Your task to perform on an android device: Open the web browser Image 0: 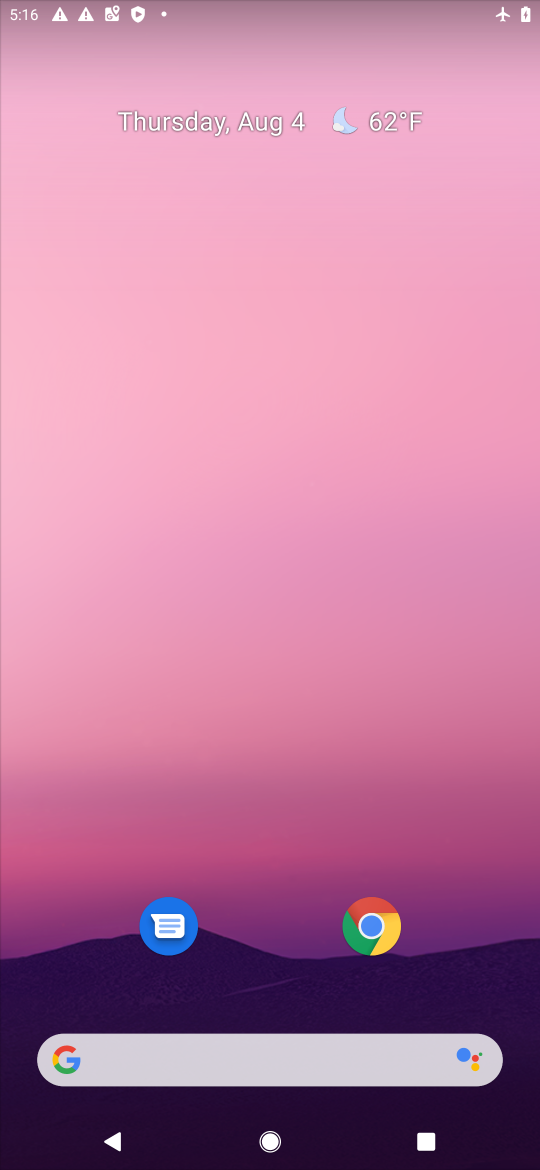
Step 0: press home button
Your task to perform on an android device: Open the web browser Image 1: 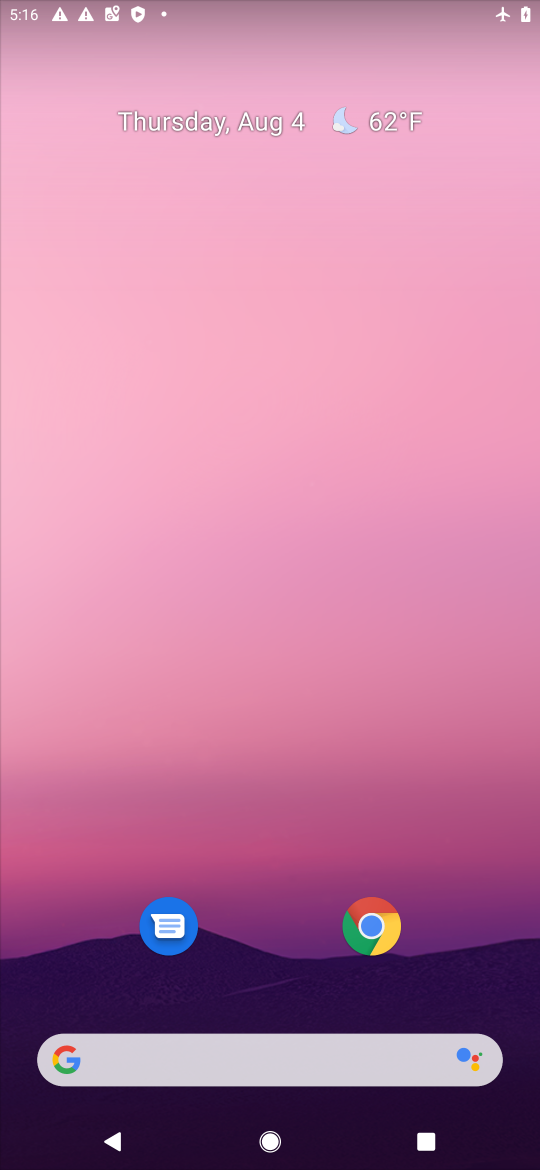
Step 1: click (64, 1059)
Your task to perform on an android device: Open the web browser Image 2: 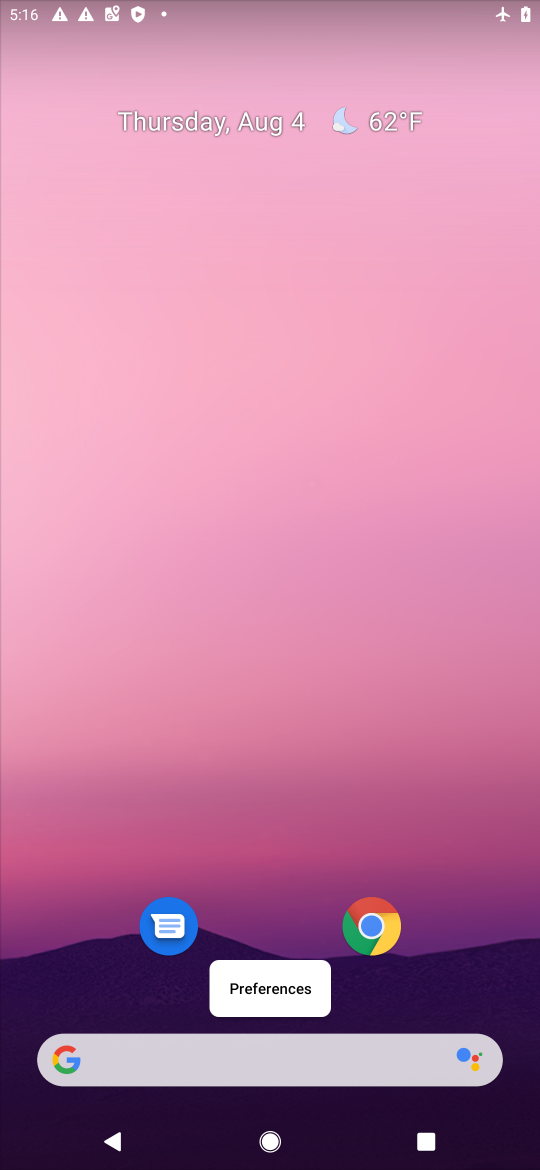
Step 2: click (64, 1059)
Your task to perform on an android device: Open the web browser Image 3: 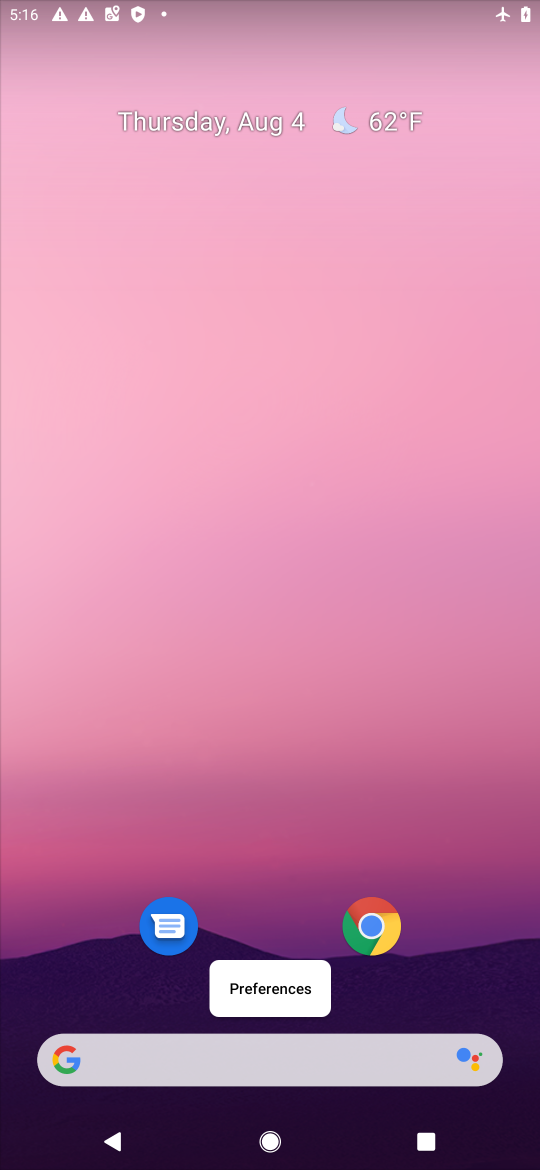
Step 3: click (64, 1059)
Your task to perform on an android device: Open the web browser Image 4: 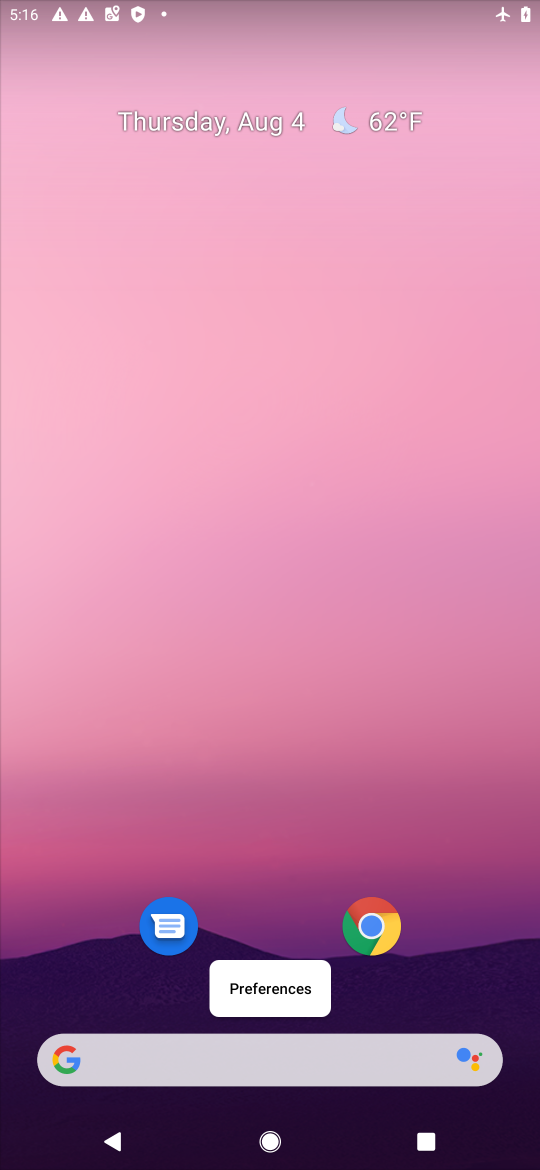
Step 4: click (71, 1062)
Your task to perform on an android device: Open the web browser Image 5: 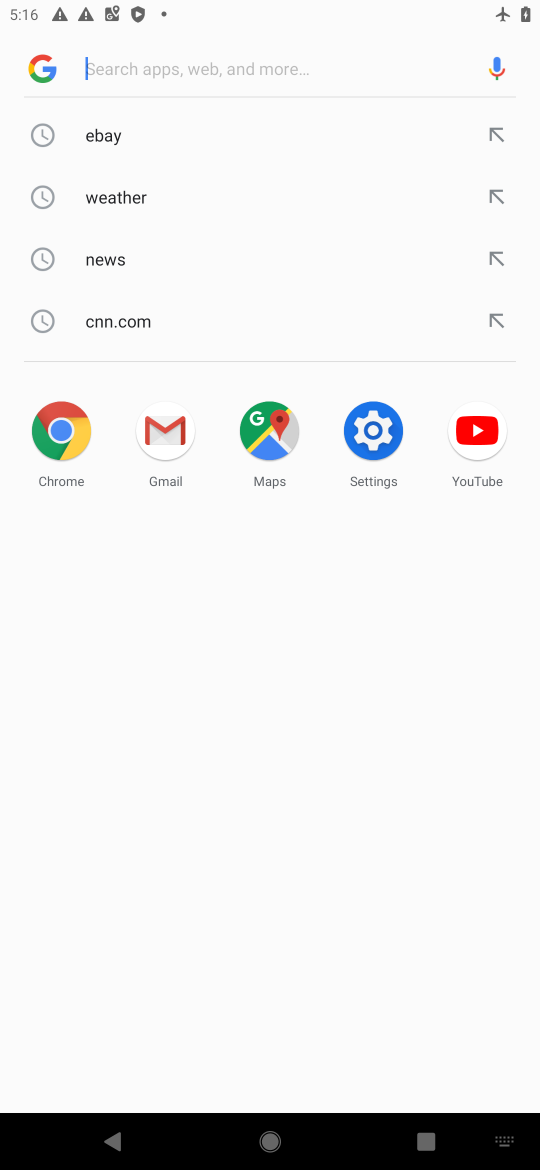
Step 5: task complete